Your task to perform on an android device: Go to location settings Image 0: 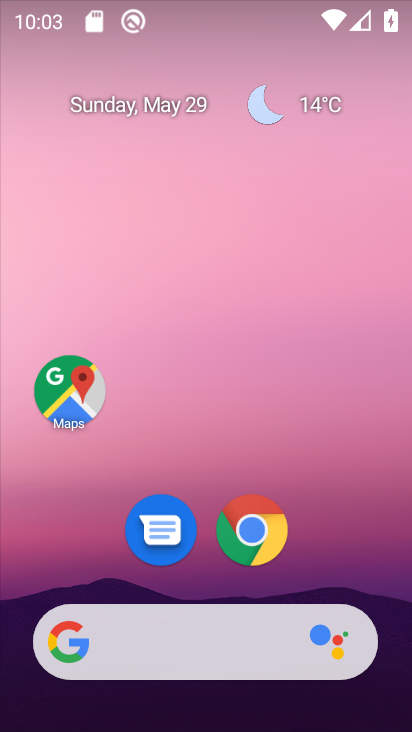
Step 0: drag from (200, 646) to (136, 72)
Your task to perform on an android device: Go to location settings Image 1: 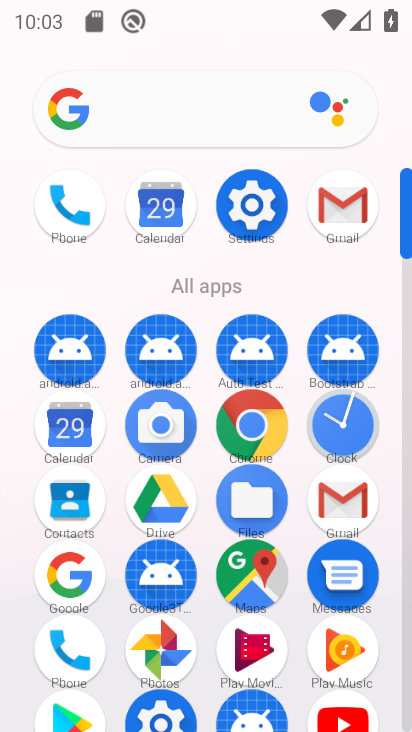
Step 1: click (265, 209)
Your task to perform on an android device: Go to location settings Image 2: 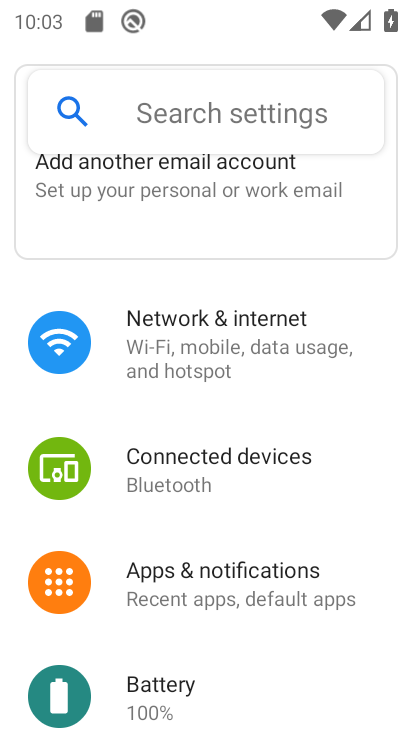
Step 2: drag from (225, 577) to (104, 36)
Your task to perform on an android device: Go to location settings Image 3: 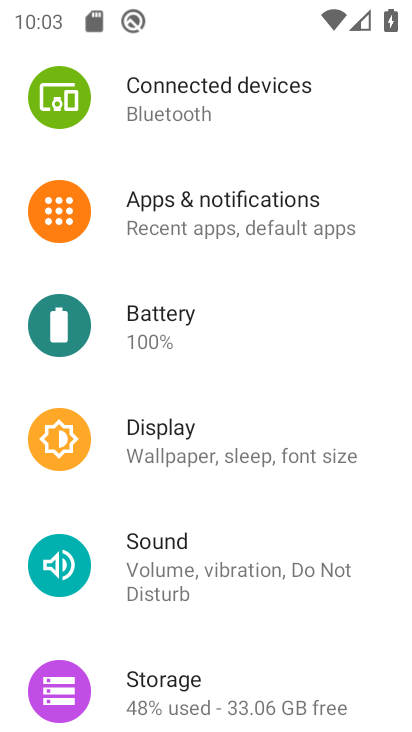
Step 3: drag from (155, 642) to (188, 182)
Your task to perform on an android device: Go to location settings Image 4: 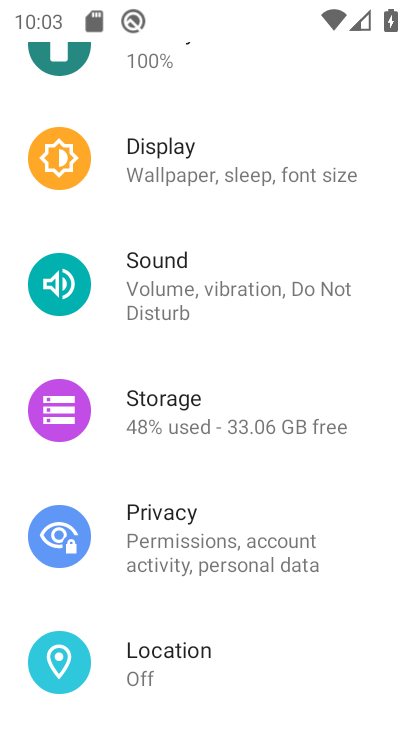
Step 4: click (179, 660)
Your task to perform on an android device: Go to location settings Image 5: 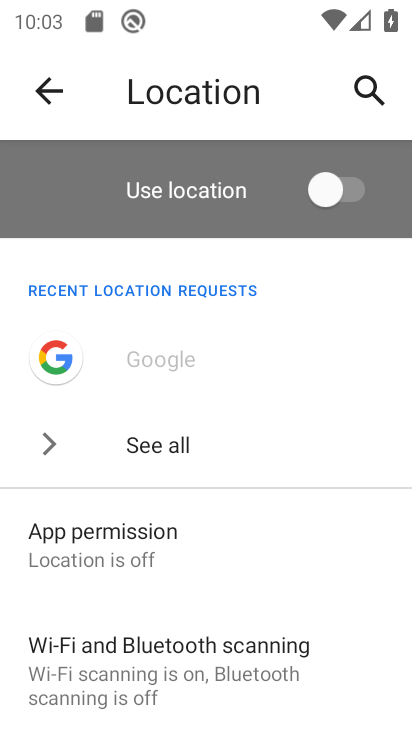
Step 5: task complete